Your task to perform on an android device: check data usage Image 0: 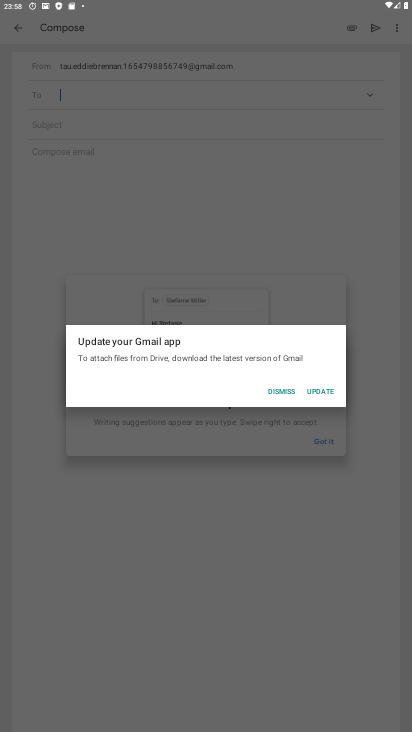
Step 0: press home button
Your task to perform on an android device: check data usage Image 1: 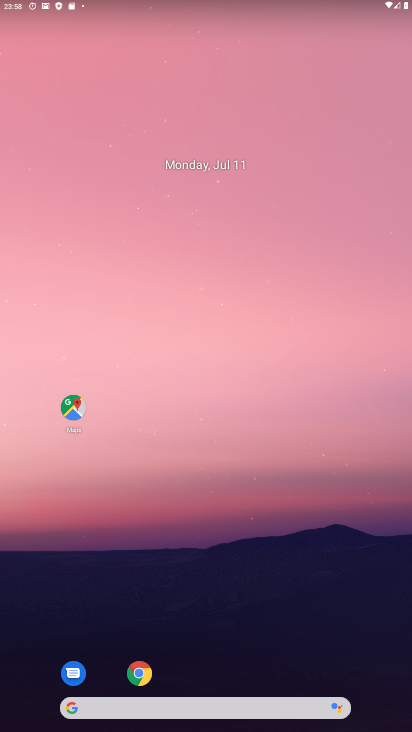
Step 1: drag from (253, 611) to (342, 209)
Your task to perform on an android device: check data usage Image 2: 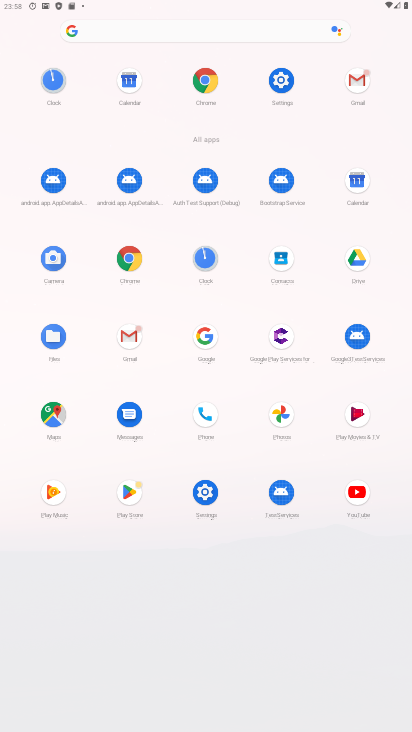
Step 2: click (277, 80)
Your task to perform on an android device: check data usage Image 3: 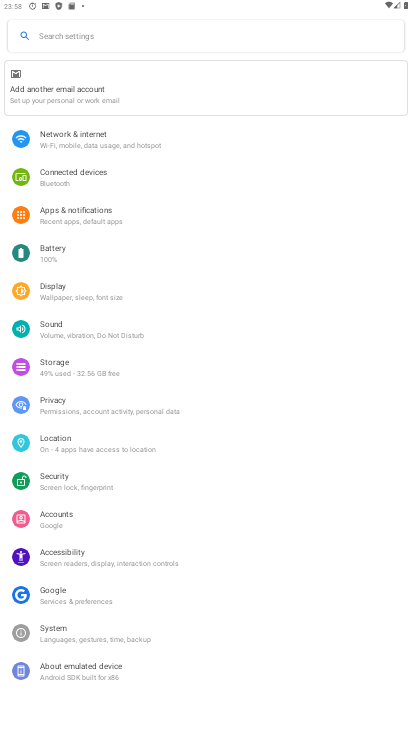
Step 3: click (55, 139)
Your task to perform on an android device: check data usage Image 4: 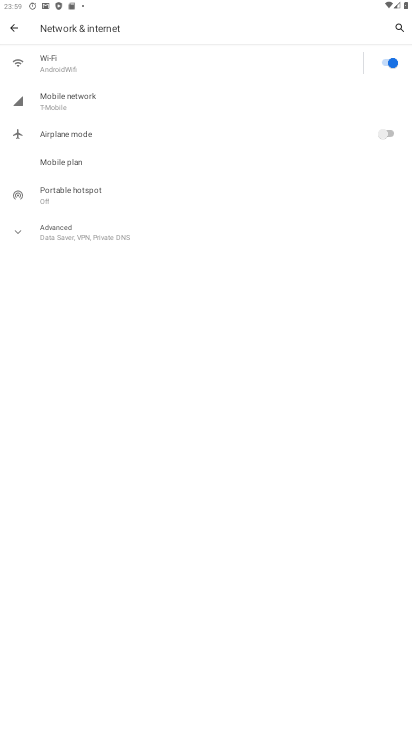
Step 4: click (72, 100)
Your task to perform on an android device: check data usage Image 5: 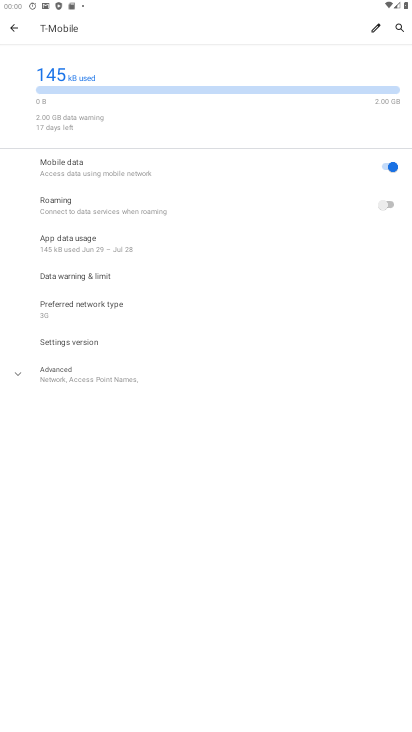
Step 5: task complete